Your task to perform on an android device: Go to Yahoo.com Image 0: 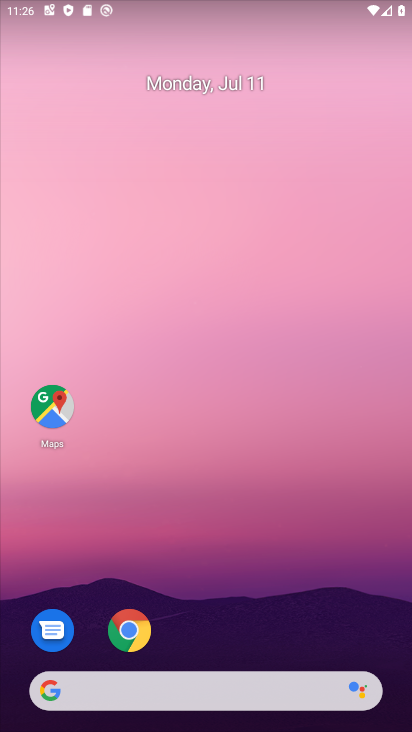
Step 0: drag from (187, 644) to (186, 177)
Your task to perform on an android device: Go to Yahoo.com Image 1: 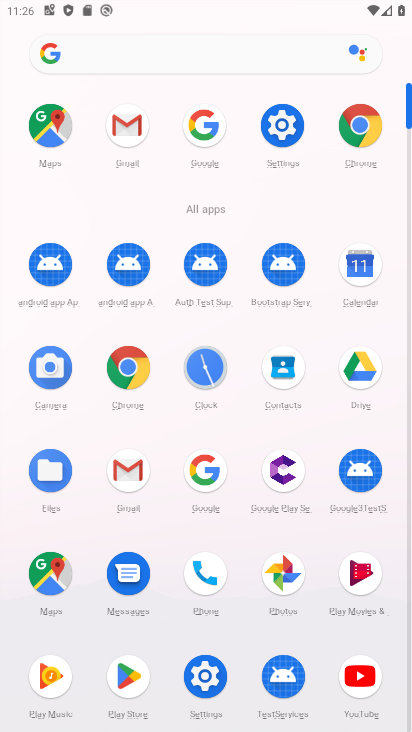
Step 1: click (131, 368)
Your task to perform on an android device: Go to Yahoo.com Image 2: 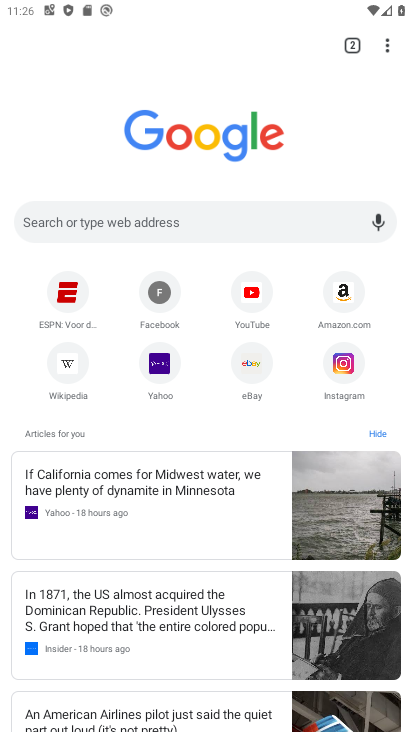
Step 2: click (158, 365)
Your task to perform on an android device: Go to Yahoo.com Image 3: 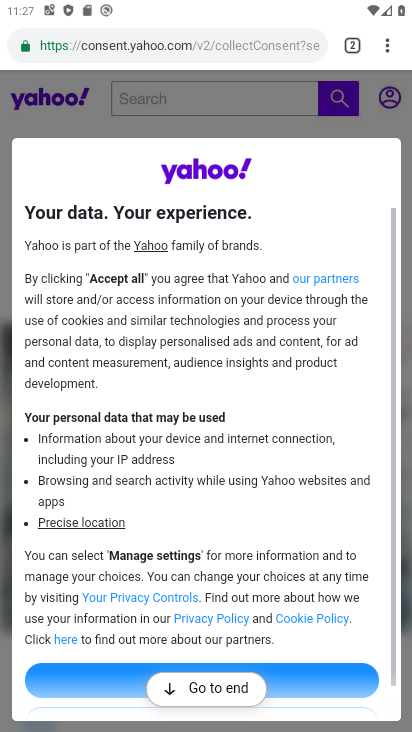
Step 3: task complete